Your task to perform on an android device: Open maps Image 0: 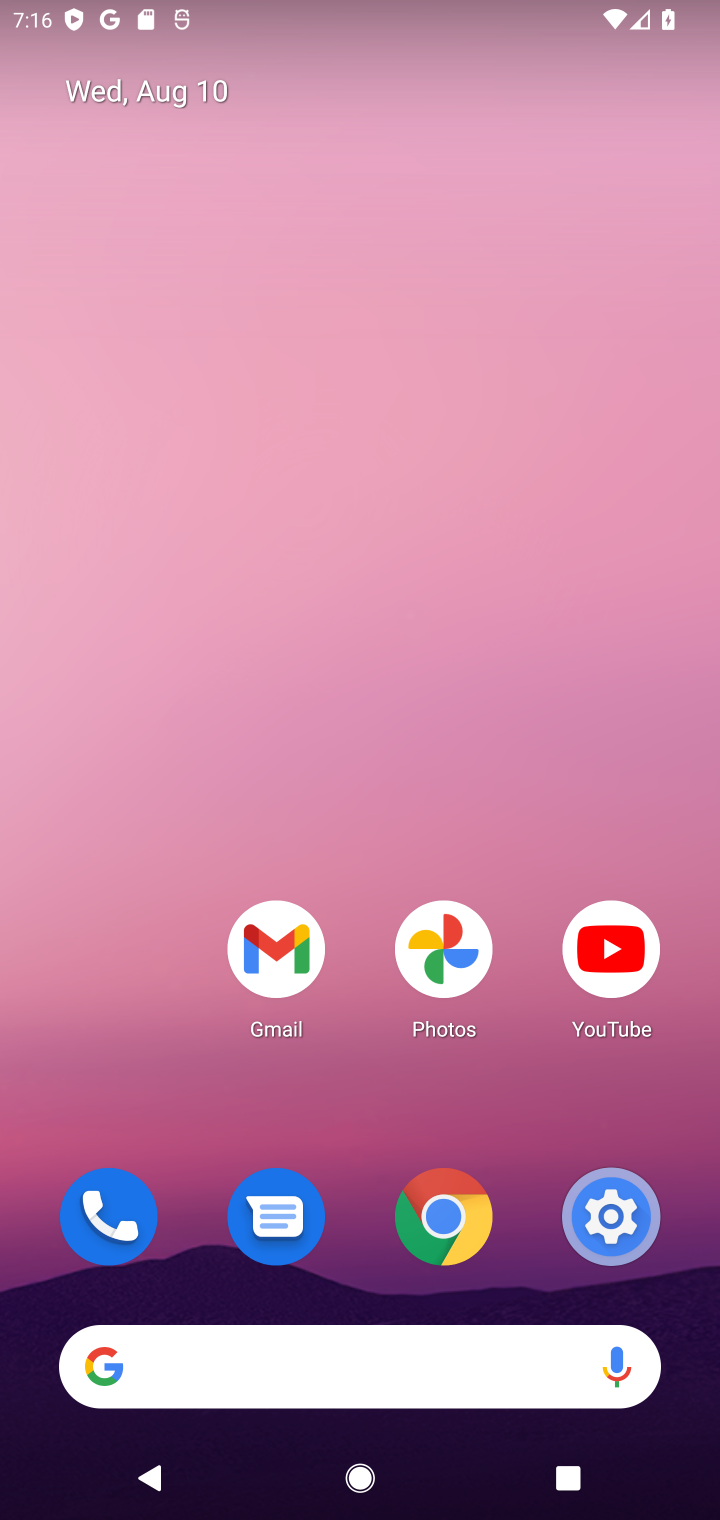
Step 0: drag from (321, 357) to (351, 258)
Your task to perform on an android device: Open maps Image 1: 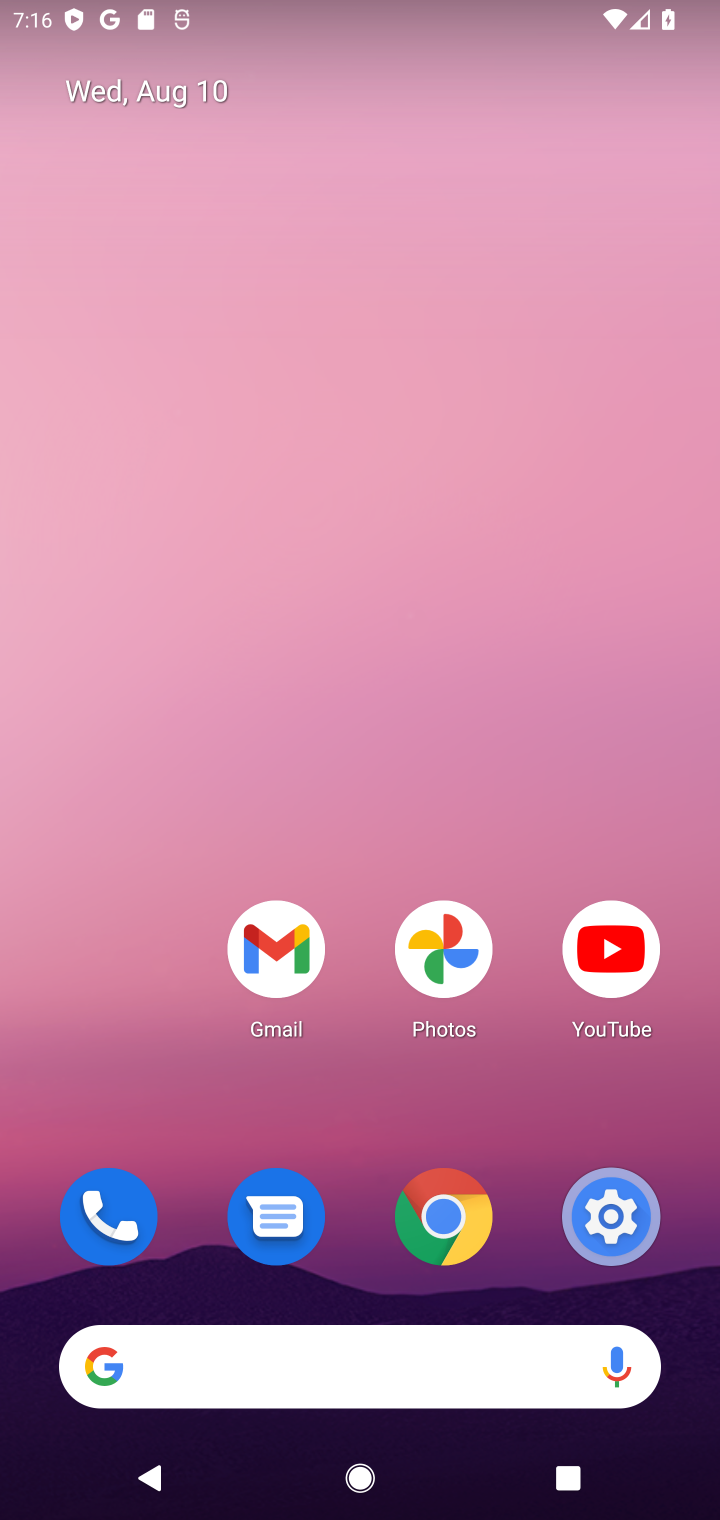
Step 1: drag from (192, 825) to (537, 116)
Your task to perform on an android device: Open maps Image 2: 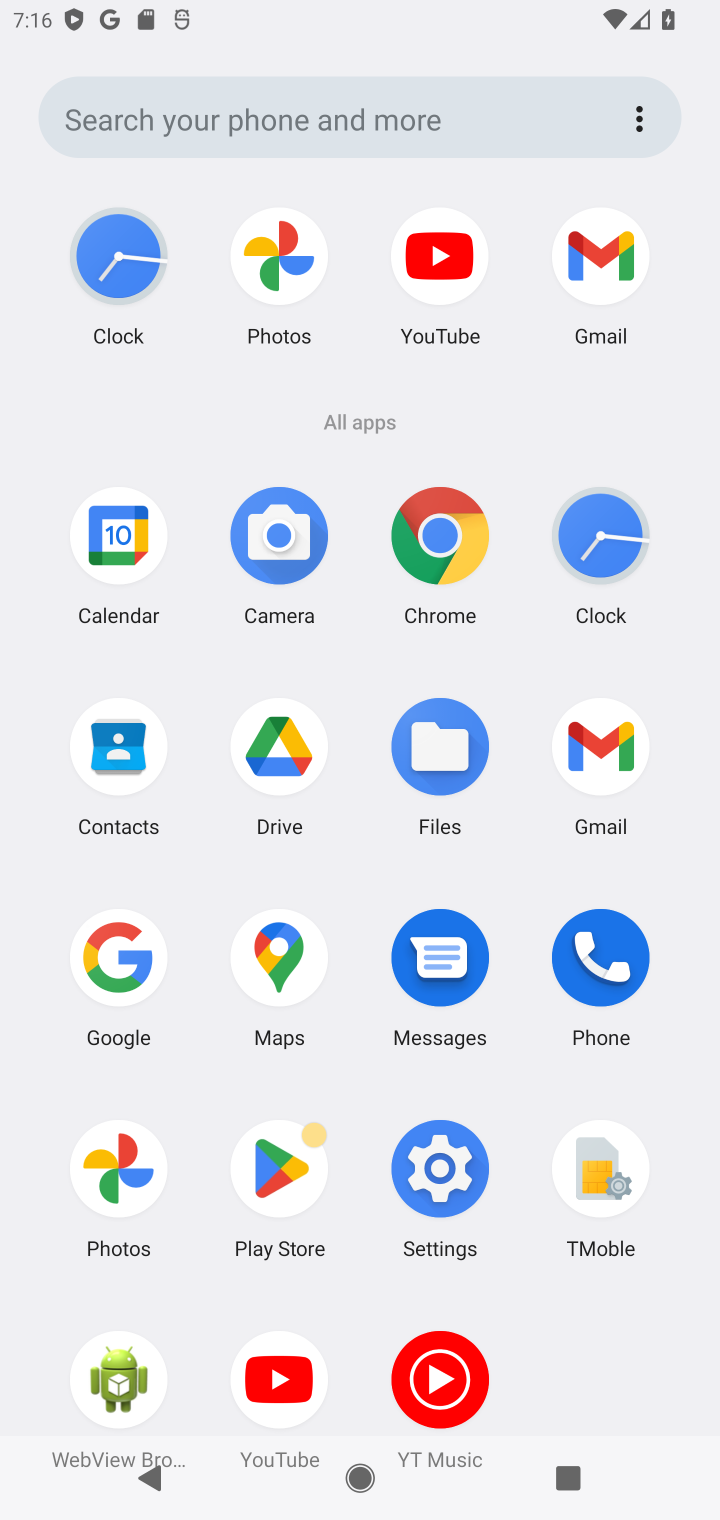
Step 2: click (286, 936)
Your task to perform on an android device: Open maps Image 3: 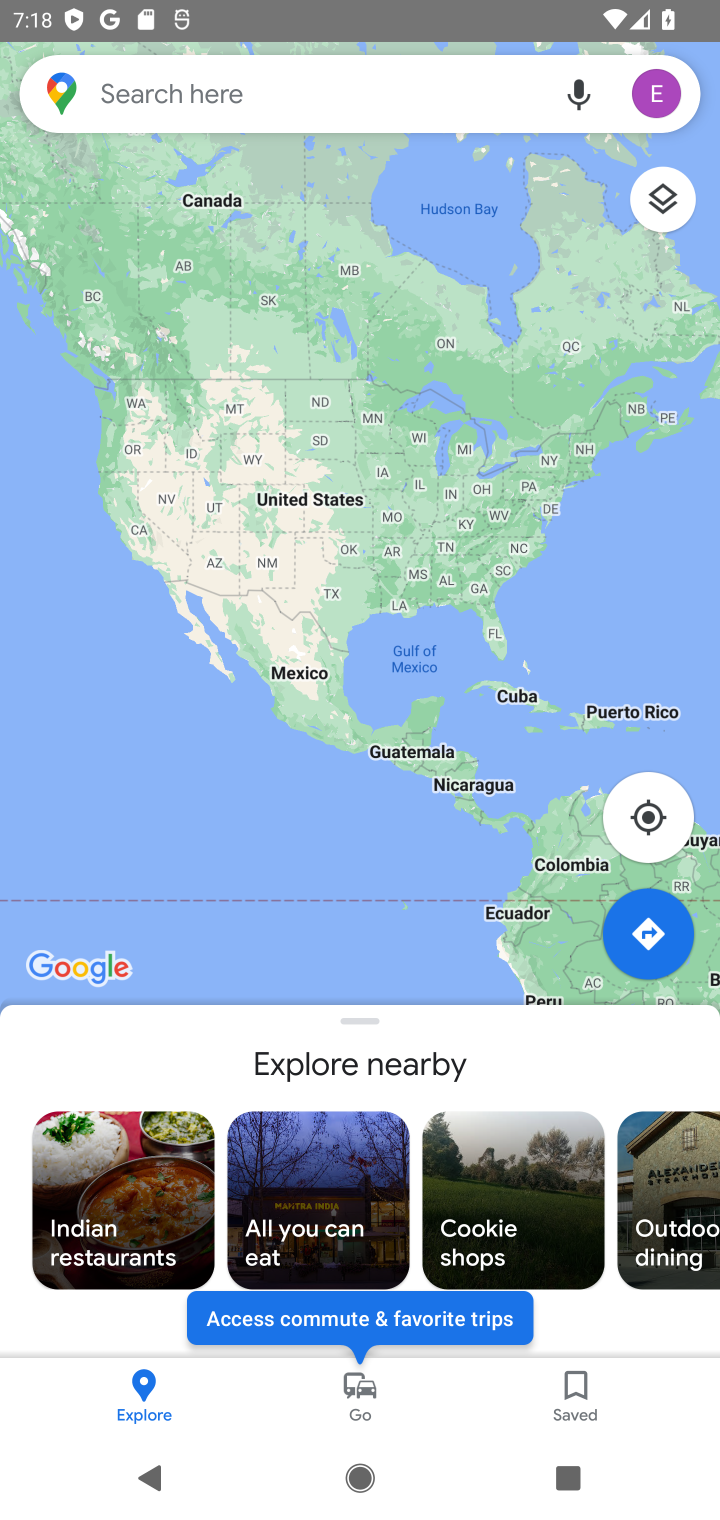
Step 3: task complete